Your task to perform on an android device: Open the map Image 0: 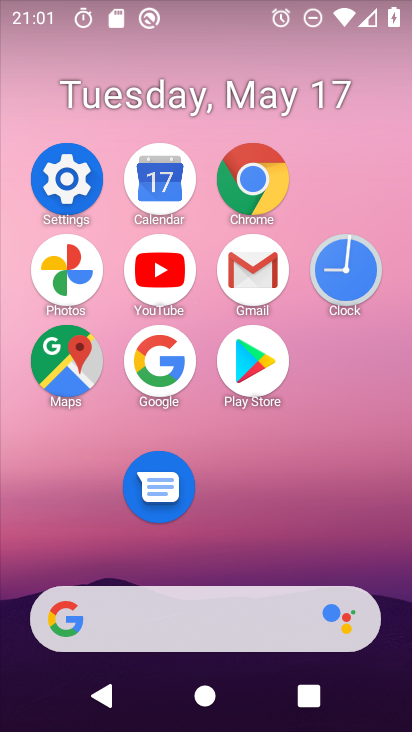
Step 0: click (93, 354)
Your task to perform on an android device: Open the map Image 1: 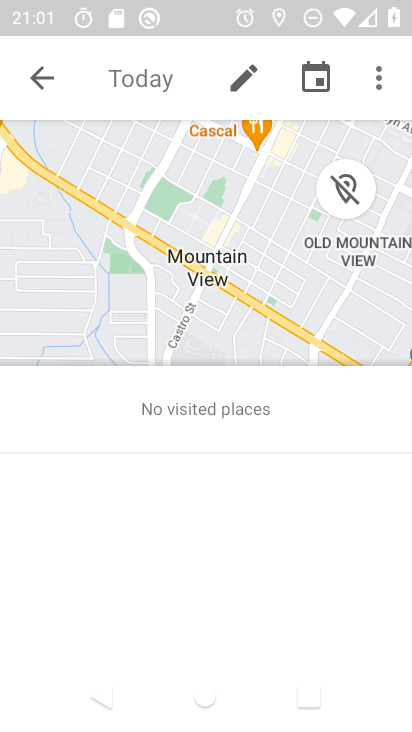
Step 1: task complete